Your task to perform on an android device: change the clock display to analog Image 0: 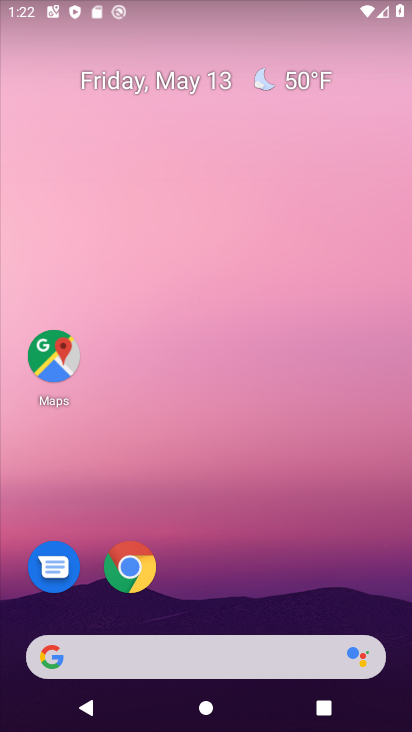
Step 0: drag from (208, 602) to (253, 318)
Your task to perform on an android device: change the clock display to analog Image 1: 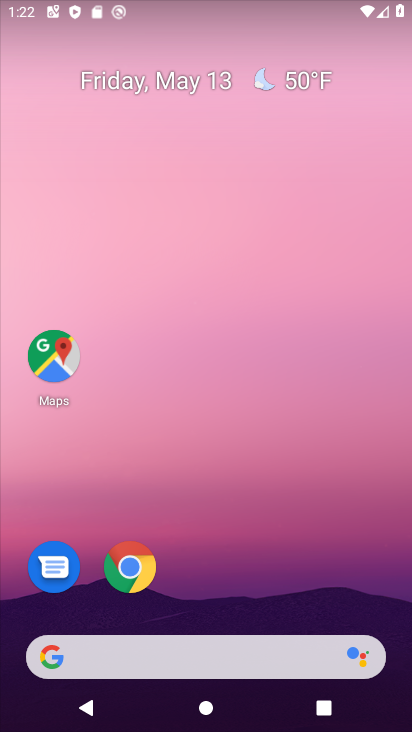
Step 1: drag from (241, 617) to (284, 333)
Your task to perform on an android device: change the clock display to analog Image 2: 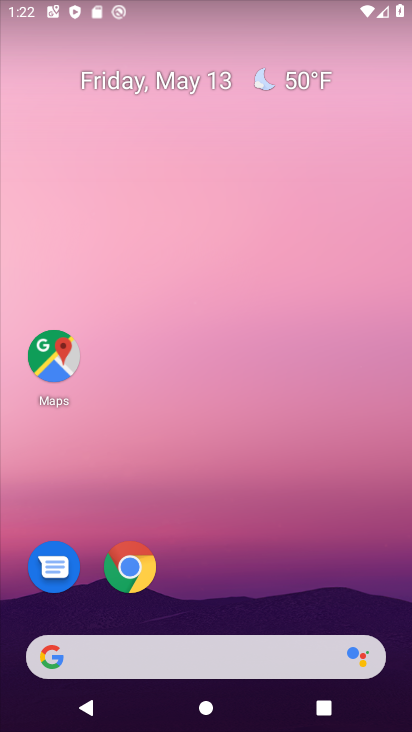
Step 2: drag from (235, 462) to (256, 248)
Your task to perform on an android device: change the clock display to analog Image 3: 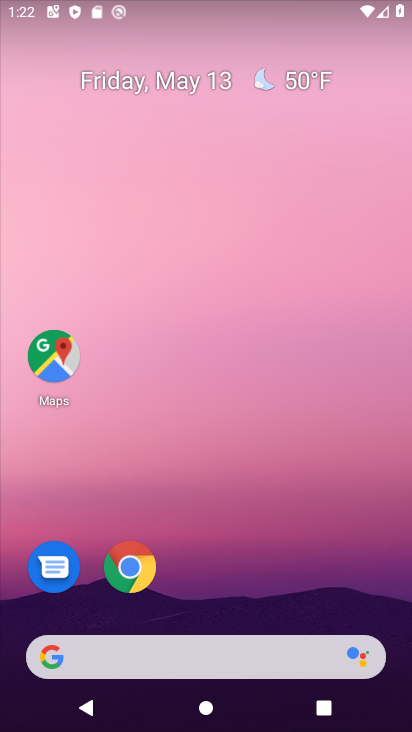
Step 3: drag from (215, 542) to (229, 285)
Your task to perform on an android device: change the clock display to analog Image 4: 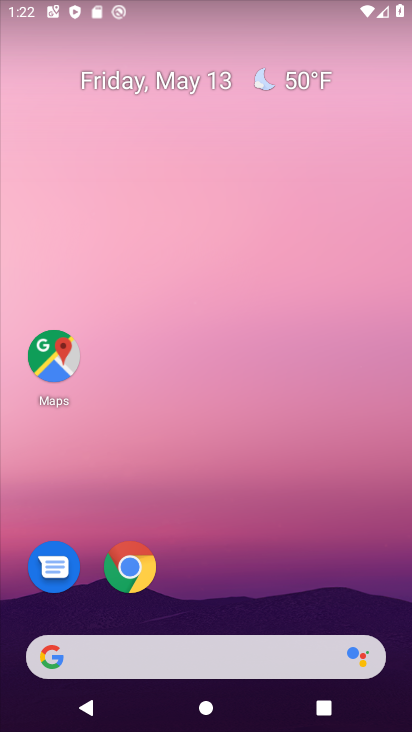
Step 4: drag from (205, 572) to (238, 219)
Your task to perform on an android device: change the clock display to analog Image 5: 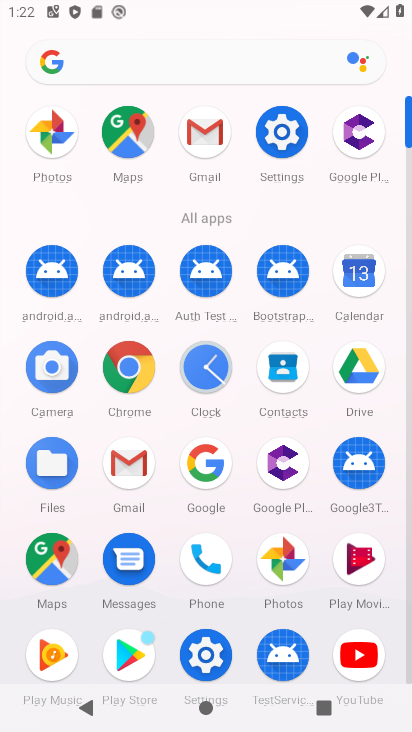
Step 5: click (296, 135)
Your task to perform on an android device: change the clock display to analog Image 6: 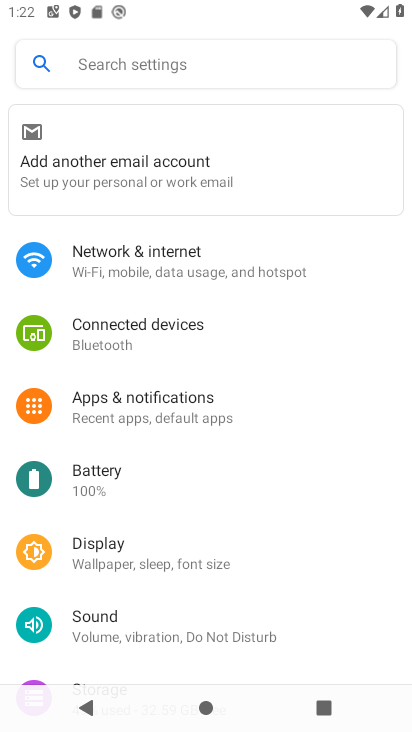
Step 6: press home button
Your task to perform on an android device: change the clock display to analog Image 7: 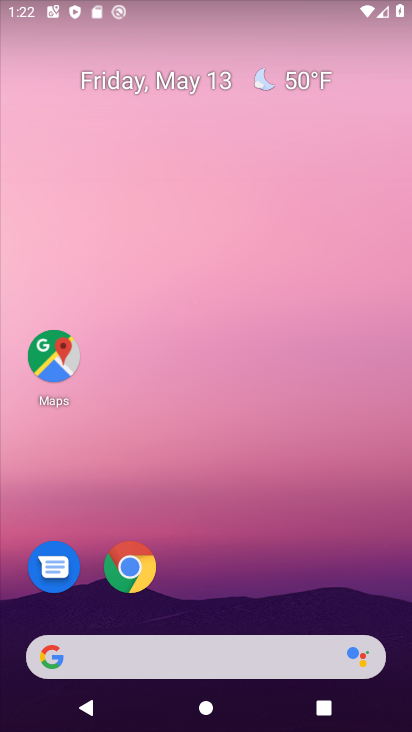
Step 7: drag from (182, 611) to (199, 417)
Your task to perform on an android device: change the clock display to analog Image 8: 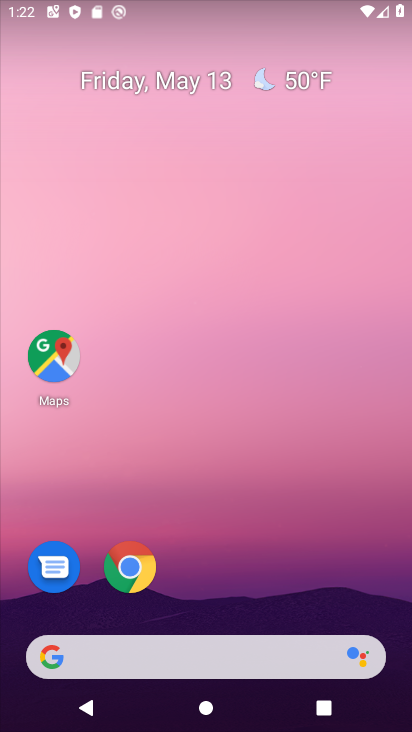
Step 8: drag from (216, 480) to (216, 285)
Your task to perform on an android device: change the clock display to analog Image 9: 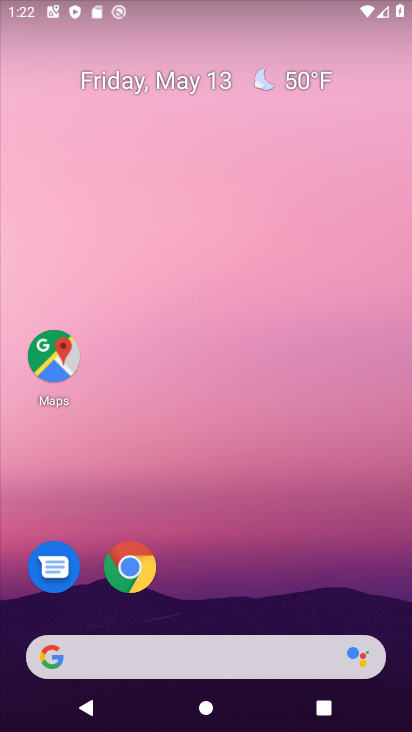
Step 9: drag from (168, 633) to (228, 163)
Your task to perform on an android device: change the clock display to analog Image 10: 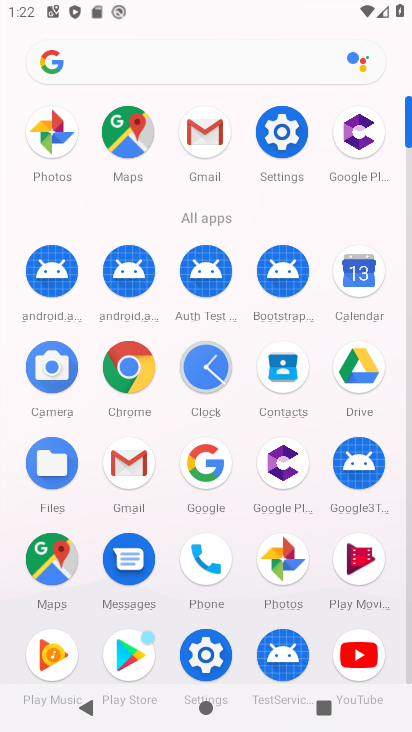
Step 10: click (198, 365)
Your task to perform on an android device: change the clock display to analog Image 11: 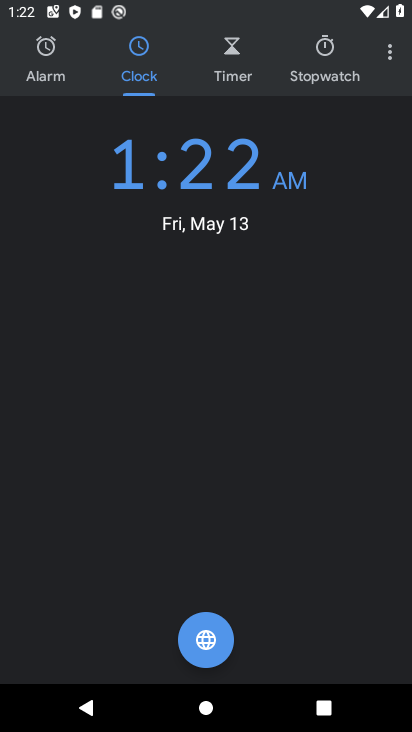
Step 11: click (397, 61)
Your task to perform on an android device: change the clock display to analog Image 12: 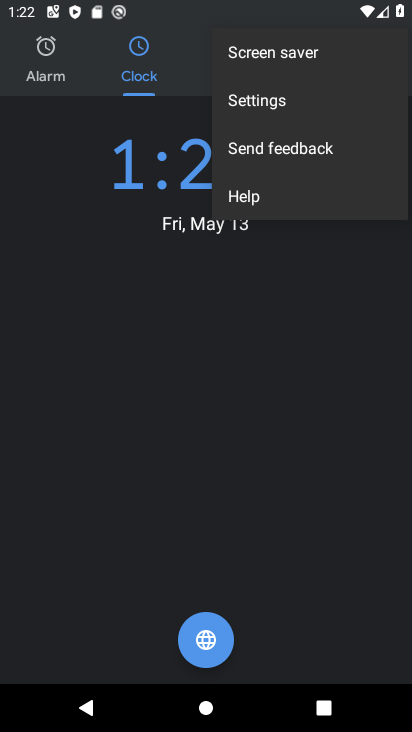
Step 12: click (273, 110)
Your task to perform on an android device: change the clock display to analog Image 13: 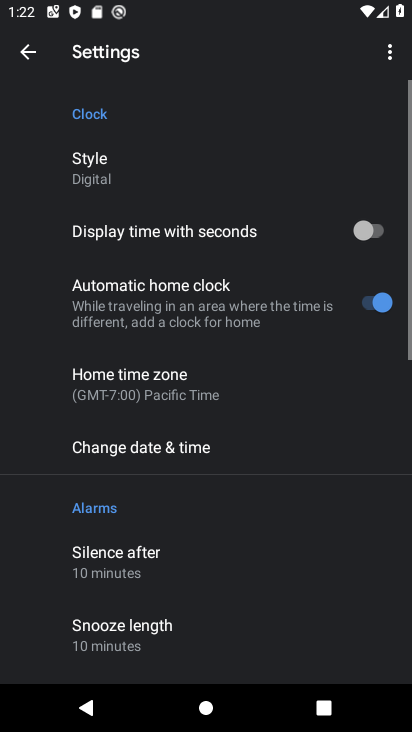
Step 13: click (115, 172)
Your task to perform on an android device: change the clock display to analog Image 14: 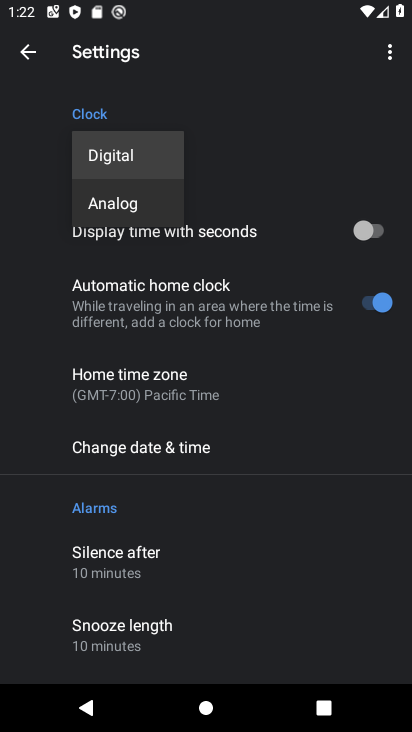
Step 14: click (155, 201)
Your task to perform on an android device: change the clock display to analog Image 15: 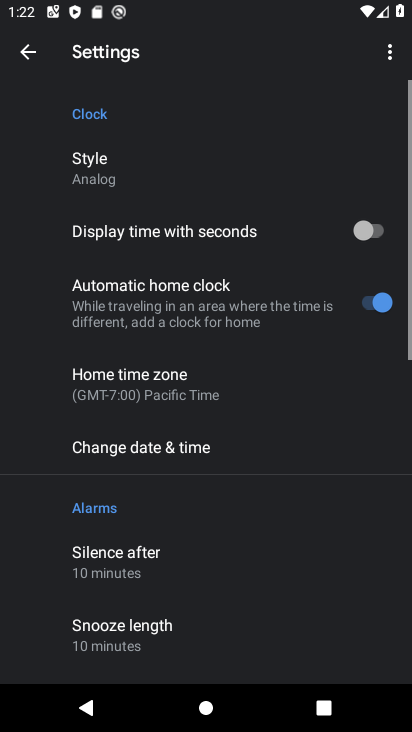
Step 15: task complete